Your task to perform on an android device: turn notification dots off Image 0: 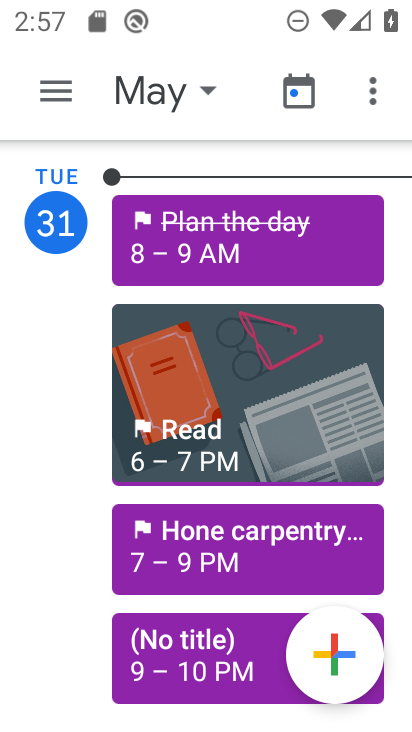
Step 0: press back button
Your task to perform on an android device: turn notification dots off Image 1: 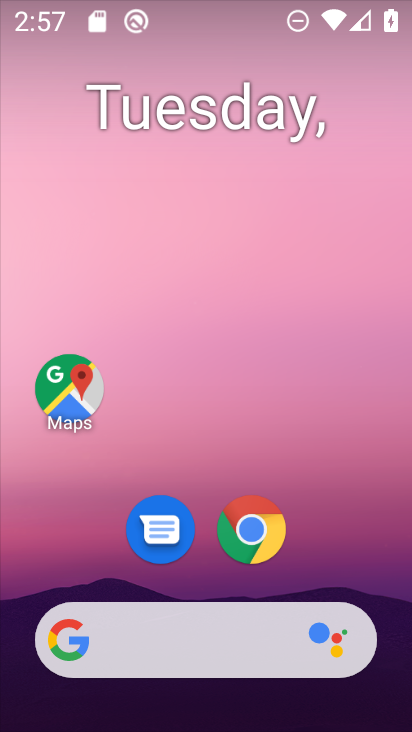
Step 1: drag from (190, 532) to (242, 42)
Your task to perform on an android device: turn notification dots off Image 2: 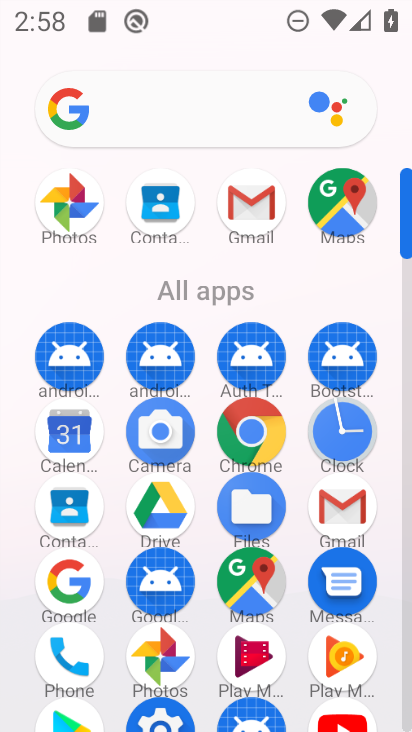
Step 2: click (160, 719)
Your task to perform on an android device: turn notification dots off Image 3: 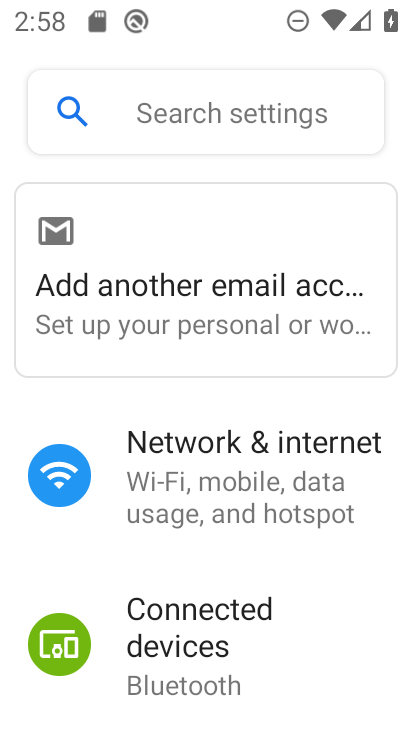
Step 3: drag from (202, 679) to (293, 167)
Your task to perform on an android device: turn notification dots off Image 4: 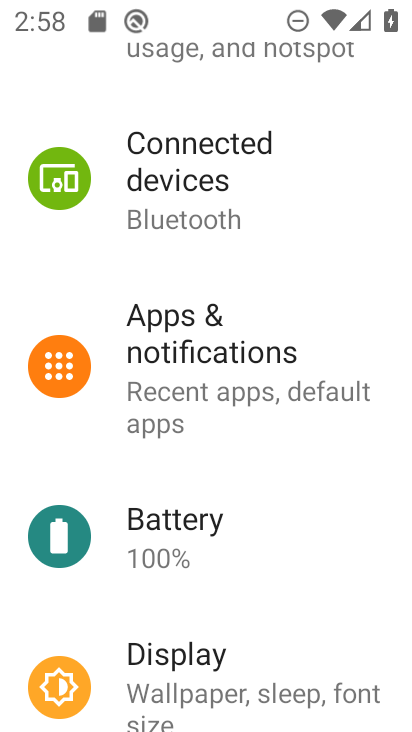
Step 4: click (221, 384)
Your task to perform on an android device: turn notification dots off Image 5: 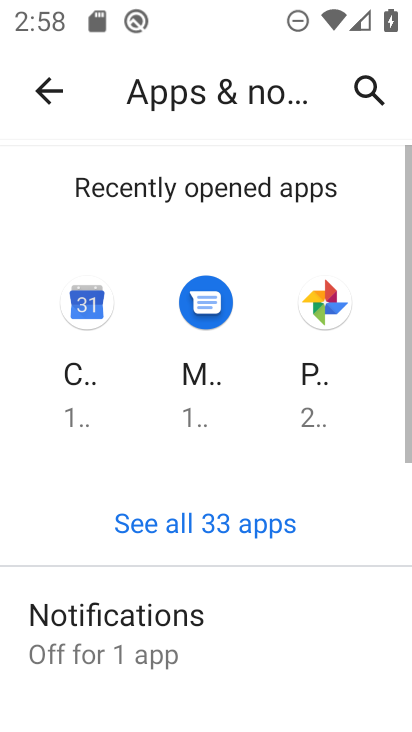
Step 5: drag from (139, 656) to (196, 217)
Your task to perform on an android device: turn notification dots off Image 6: 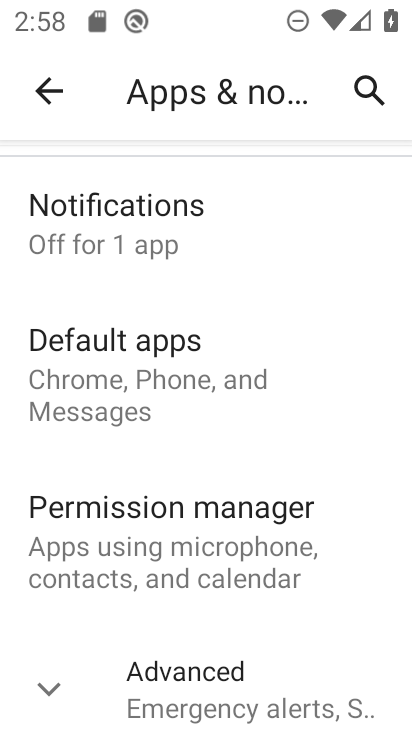
Step 6: click (132, 234)
Your task to perform on an android device: turn notification dots off Image 7: 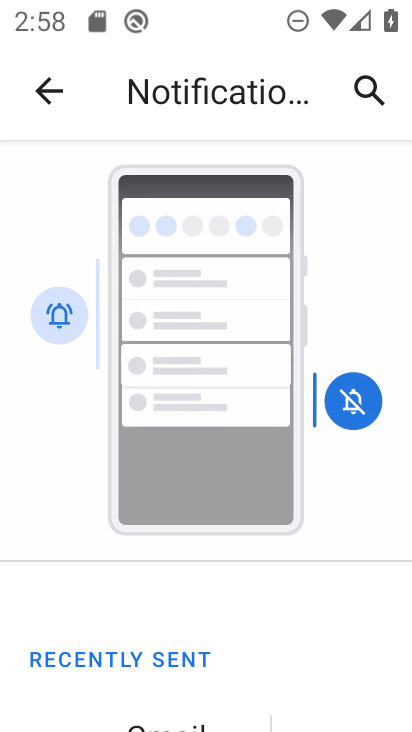
Step 7: drag from (197, 615) to (223, 194)
Your task to perform on an android device: turn notification dots off Image 8: 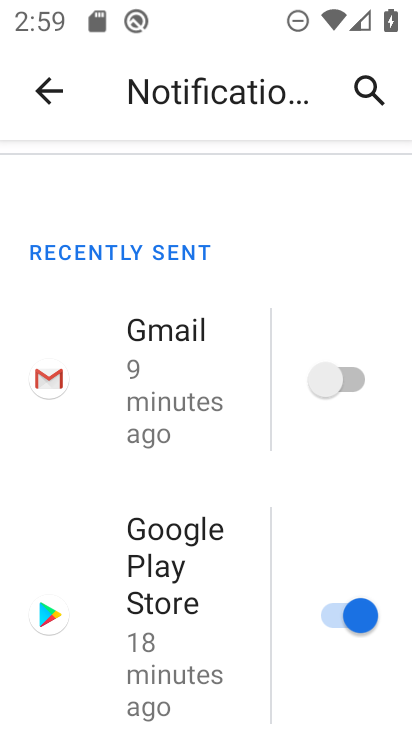
Step 8: drag from (197, 233) to (150, 726)
Your task to perform on an android device: turn notification dots off Image 9: 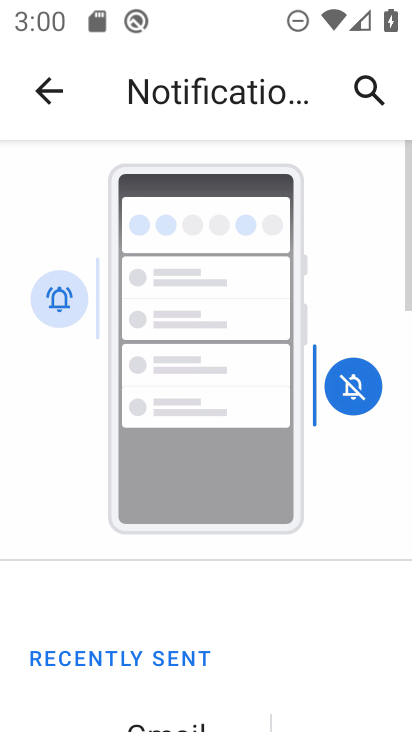
Step 9: drag from (178, 245) to (171, 725)
Your task to perform on an android device: turn notification dots off Image 10: 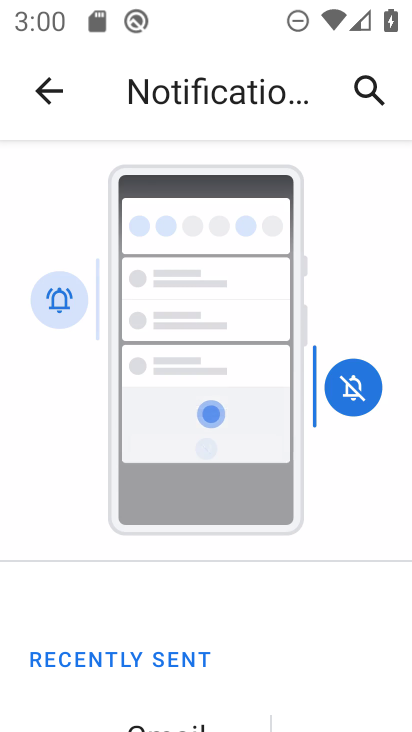
Step 10: click (36, 87)
Your task to perform on an android device: turn notification dots off Image 11: 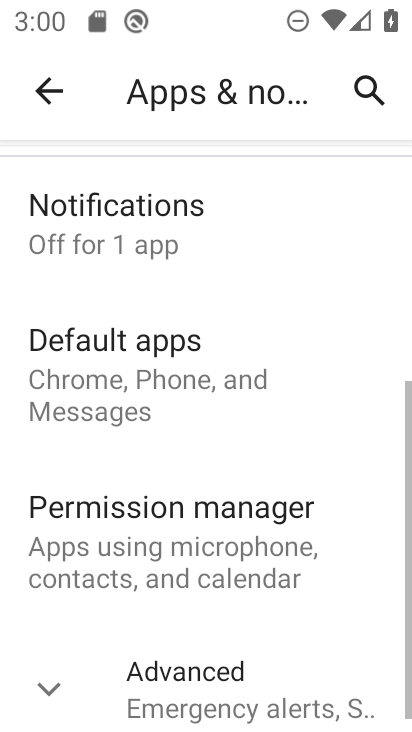
Step 11: click (138, 236)
Your task to perform on an android device: turn notification dots off Image 12: 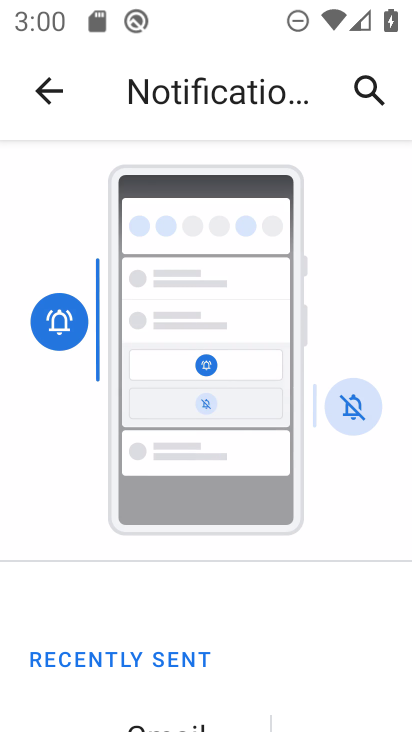
Step 12: drag from (174, 678) to (288, 78)
Your task to perform on an android device: turn notification dots off Image 13: 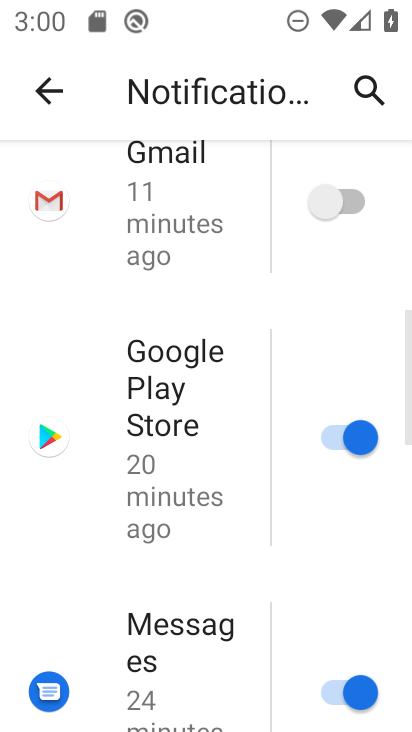
Step 13: drag from (162, 642) to (284, 92)
Your task to perform on an android device: turn notification dots off Image 14: 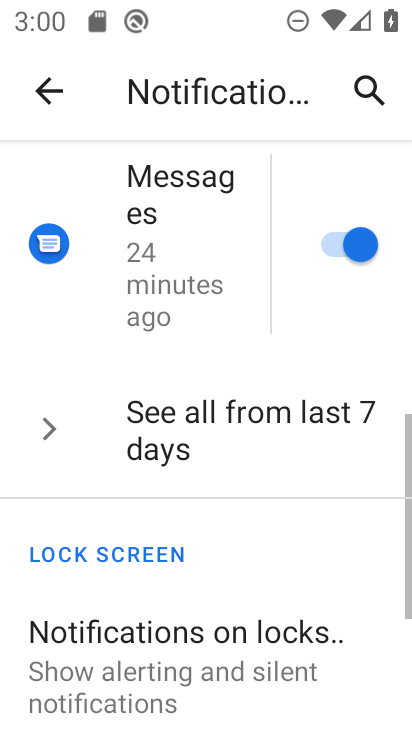
Step 14: drag from (151, 602) to (280, 50)
Your task to perform on an android device: turn notification dots off Image 15: 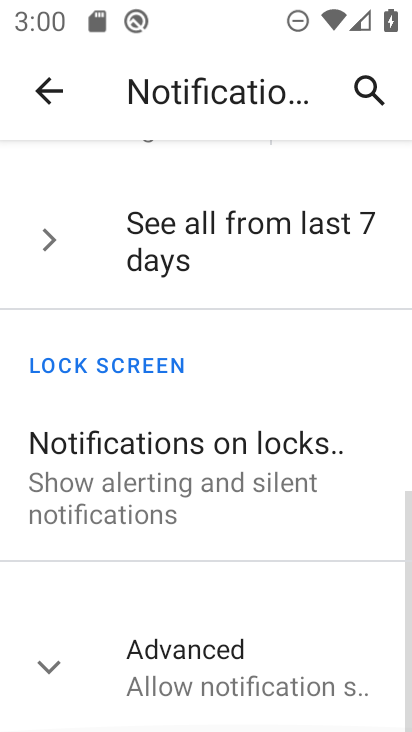
Step 15: drag from (193, 631) to (262, 82)
Your task to perform on an android device: turn notification dots off Image 16: 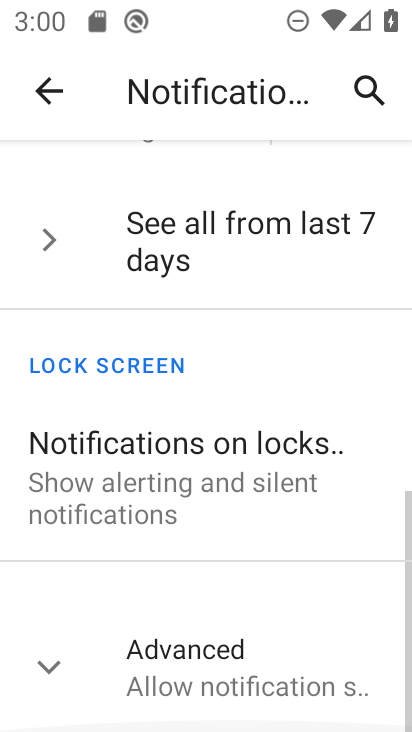
Step 16: click (248, 689)
Your task to perform on an android device: turn notification dots off Image 17: 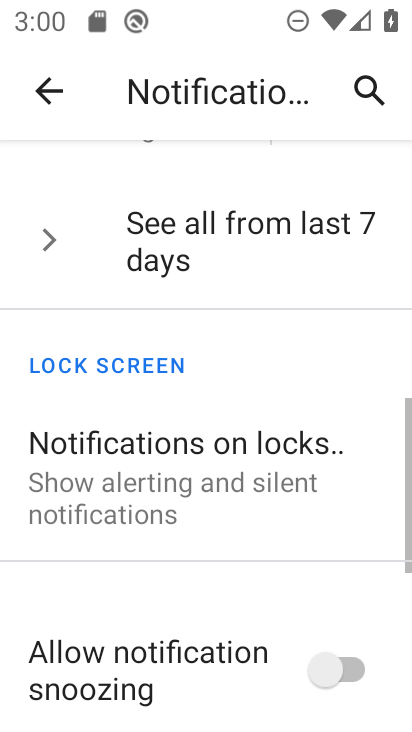
Step 17: drag from (228, 681) to (289, 135)
Your task to perform on an android device: turn notification dots off Image 18: 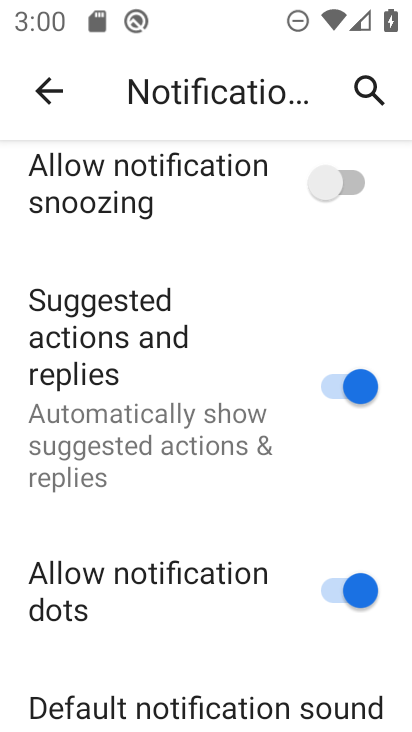
Step 18: click (342, 594)
Your task to perform on an android device: turn notification dots off Image 19: 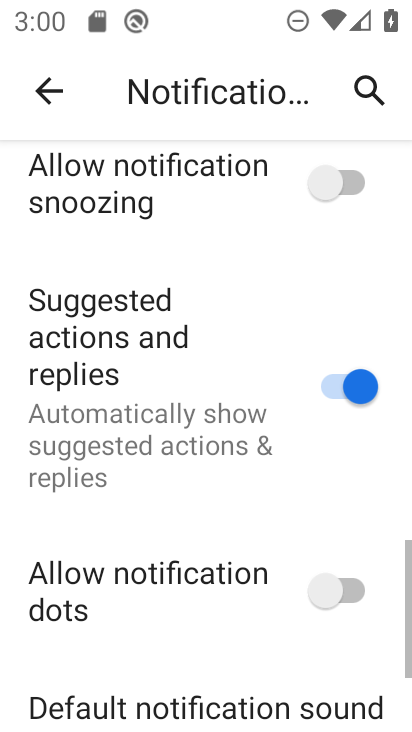
Step 19: task complete